Your task to perform on an android device: stop showing notifications on the lock screen Image 0: 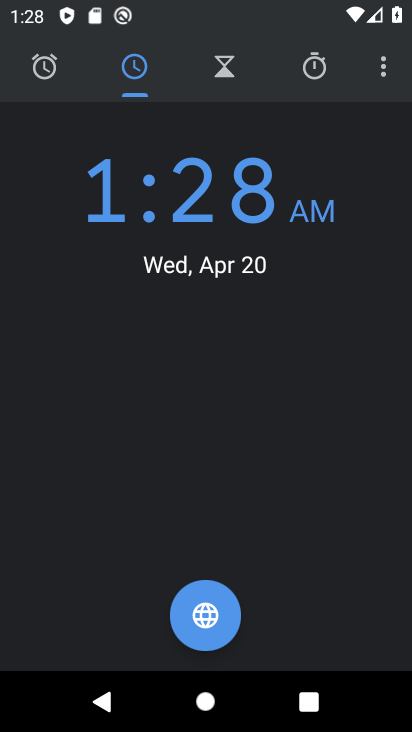
Step 0: press home button
Your task to perform on an android device: stop showing notifications on the lock screen Image 1: 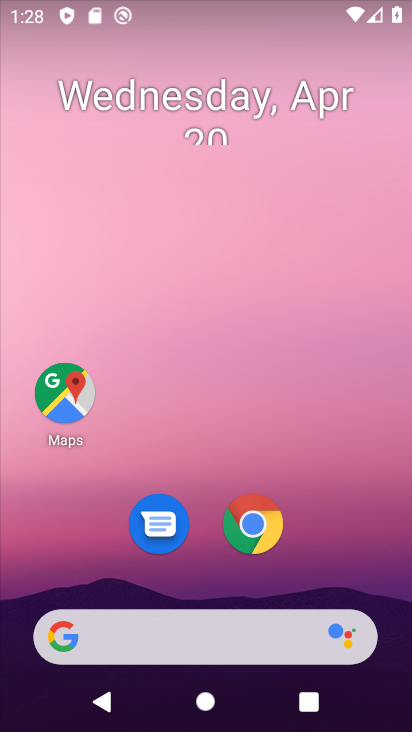
Step 1: drag from (346, 538) to (299, 38)
Your task to perform on an android device: stop showing notifications on the lock screen Image 2: 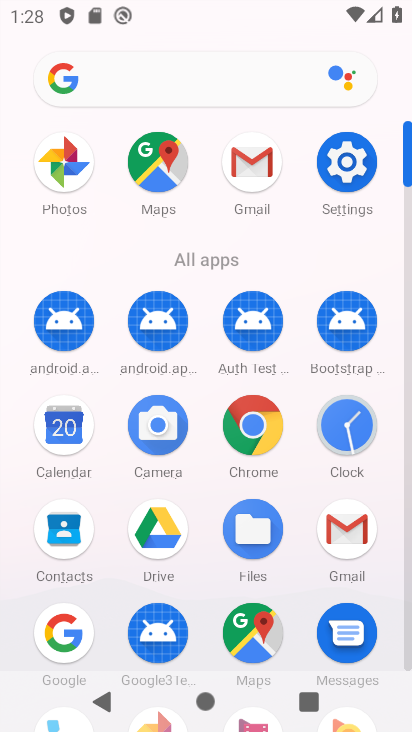
Step 2: click (339, 167)
Your task to perform on an android device: stop showing notifications on the lock screen Image 3: 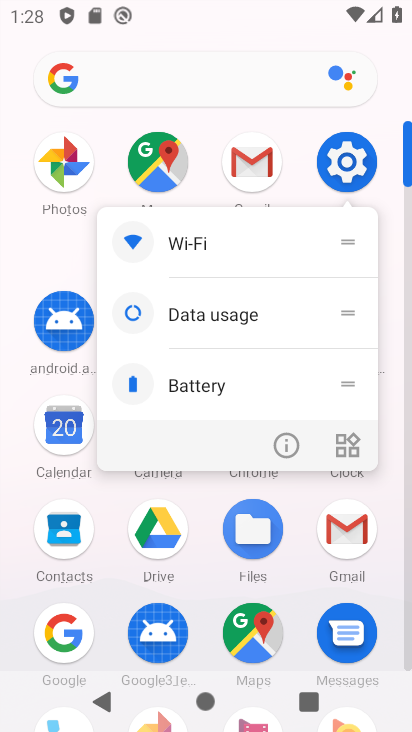
Step 3: click (339, 170)
Your task to perform on an android device: stop showing notifications on the lock screen Image 4: 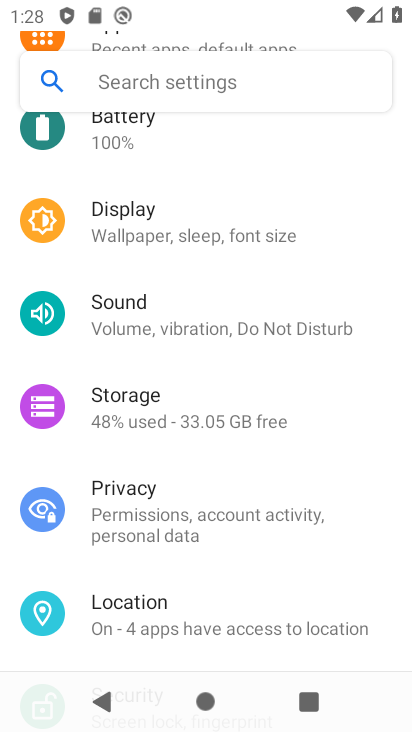
Step 4: drag from (262, 170) to (283, 566)
Your task to perform on an android device: stop showing notifications on the lock screen Image 5: 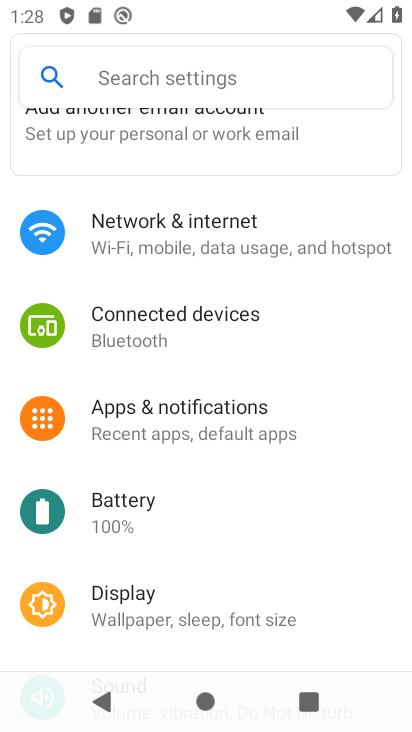
Step 5: click (239, 431)
Your task to perform on an android device: stop showing notifications on the lock screen Image 6: 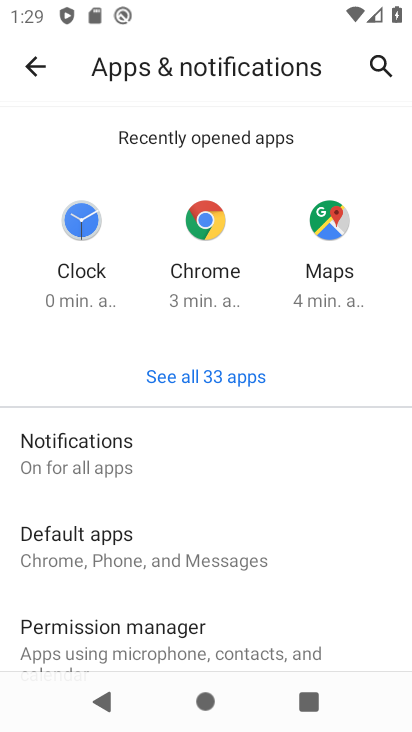
Step 6: click (236, 460)
Your task to perform on an android device: stop showing notifications on the lock screen Image 7: 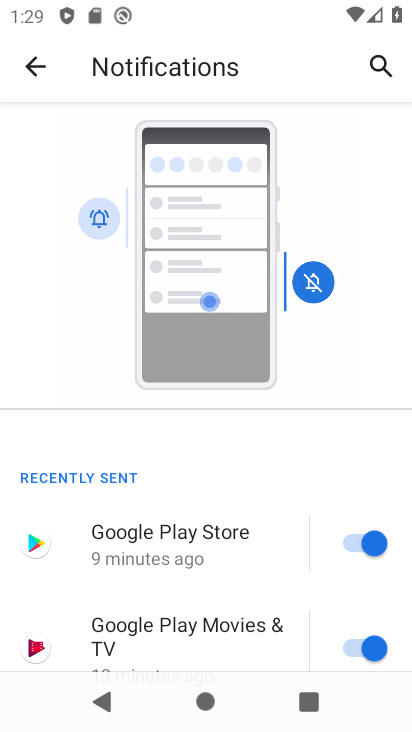
Step 7: drag from (247, 586) to (229, 126)
Your task to perform on an android device: stop showing notifications on the lock screen Image 8: 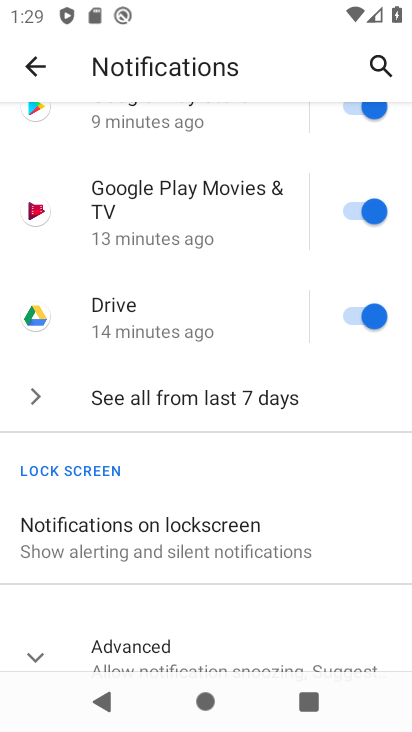
Step 8: click (220, 529)
Your task to perform on an android device: stop showing notifications on the lock screen Image 9: 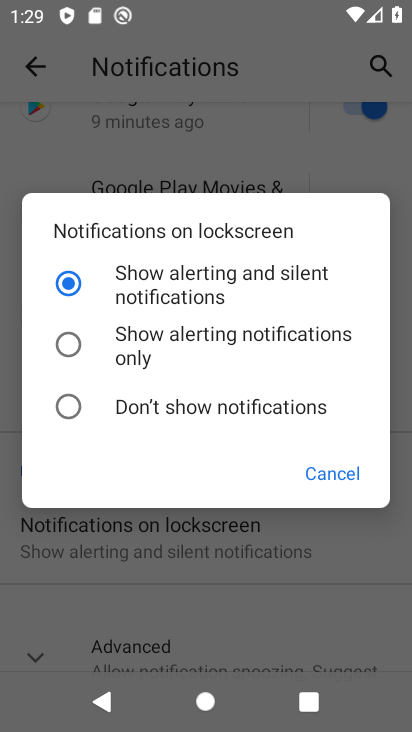
Step 9: click (68, 395)
Your task to perform on an android device: stop showing notifications on the lock screen Image 10: 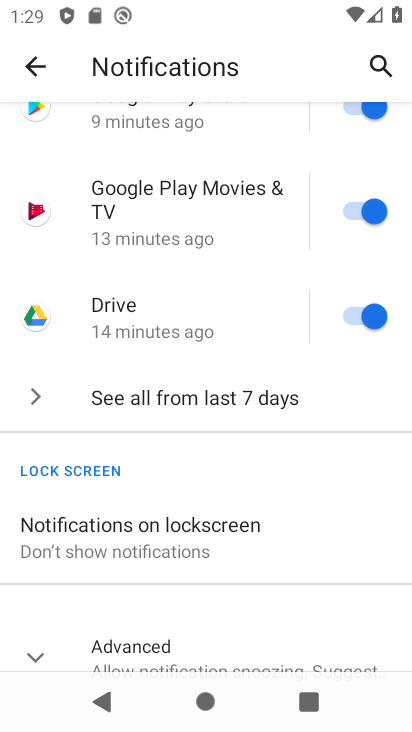
Step 10: task complete